Your task to perform on an android device: add a label to a message in the gmail app Image 0: 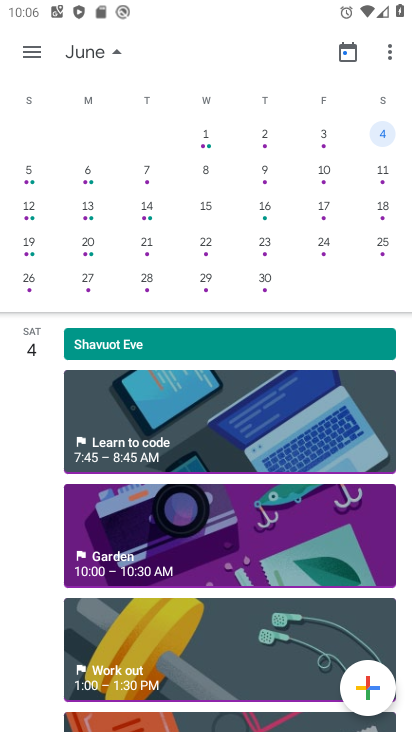
Step 0: press home button
Your task to perform on an android device: add a label to a message in the gmail app Image 1: 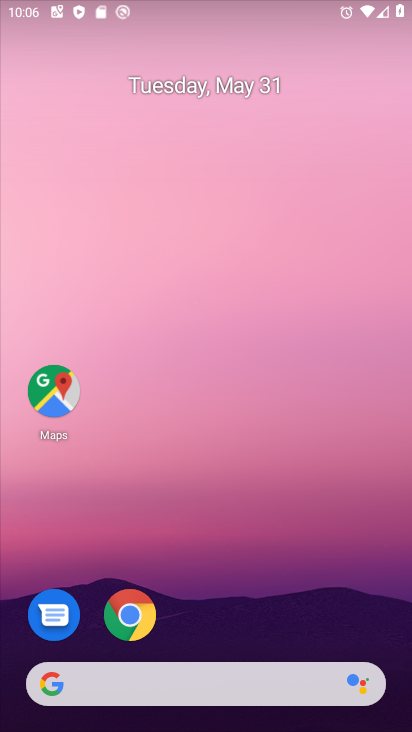
Step 1: drag from (313, 237) to (404, 100)
Your task to perform on an android device: add a label to a message in the gmail app Image 2: 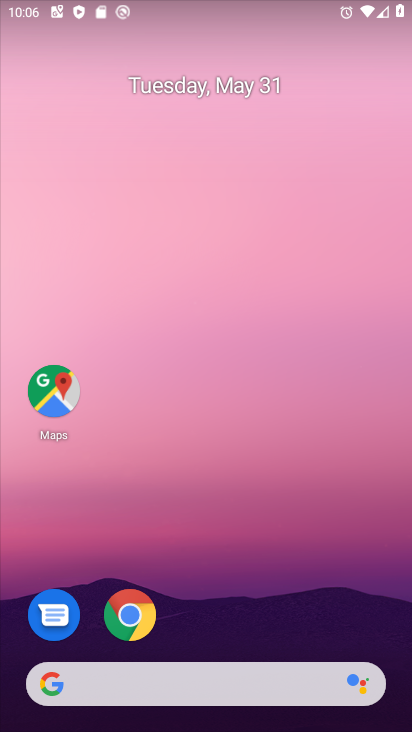
Step 2: drag from (293, 549) to (337, 21)
Your task to perform on an android device: add a label to a message in the gmail app Image 3: 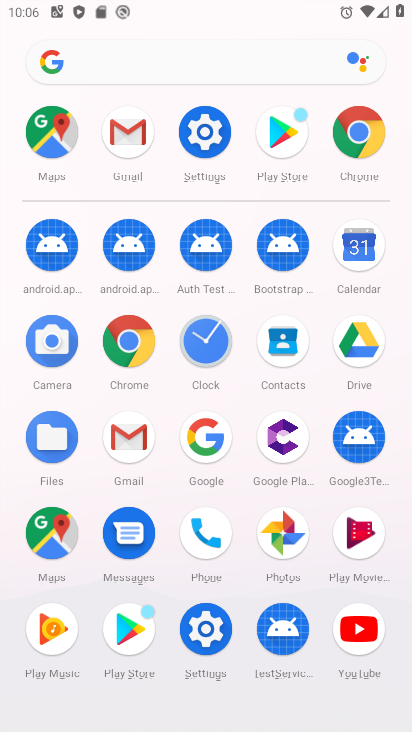
Step 3: click (112, 217)
Your task to perform on an android device: add a label to a message in the gmail app Image 4: 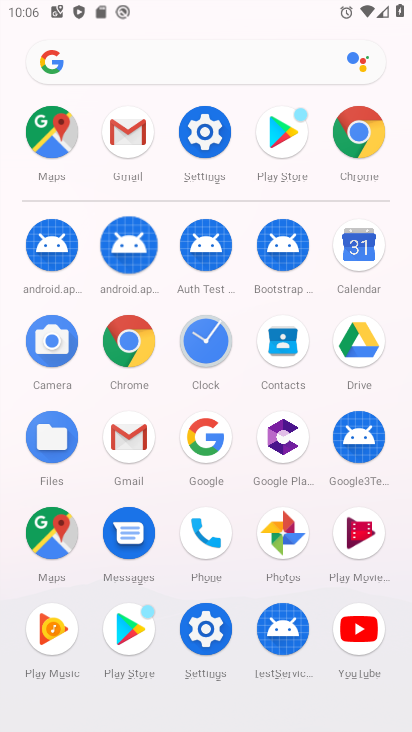
Step 4: click (129, 143)
Your task to perform on an android device: add a label to a message in the gmail app Image 5: 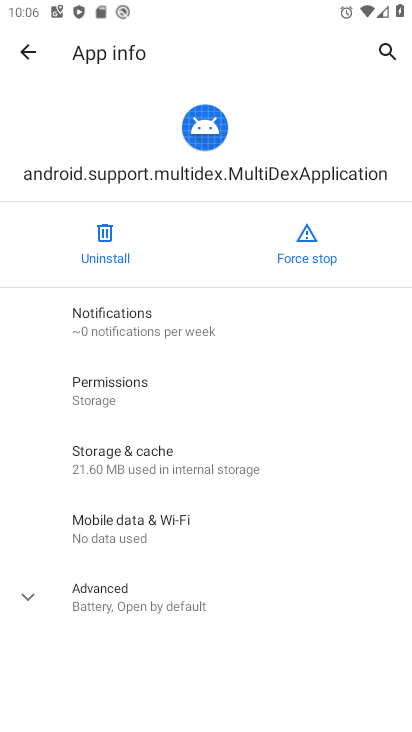
Step 5: press home button
Your task to perform on an android device: add a label to a message in the gmail app Image 6: 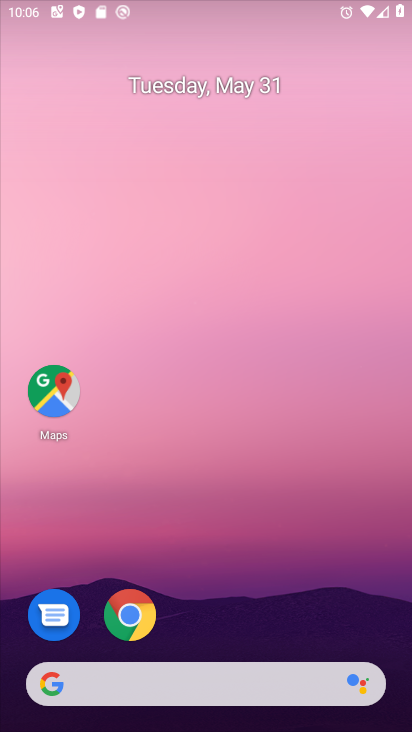
Step 6: drag from (326, 600) to (352, 71)
Your task to perform on an android device: add a label to a message in the gmail app Image 7: 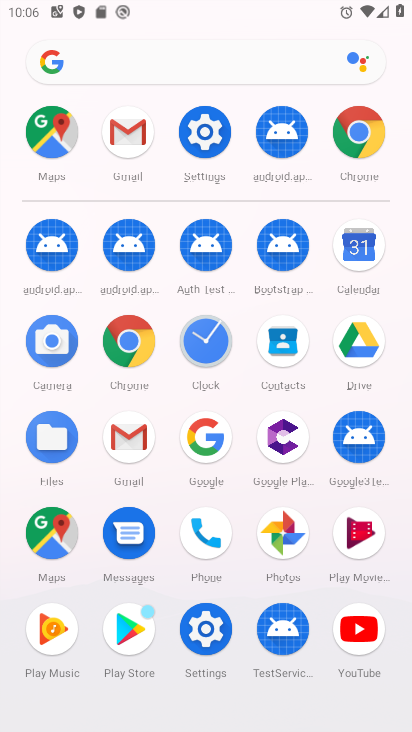
Step 7: click (145, 143)
Your task to perform on an android device: add a label to a message in the gmail app Image 8: 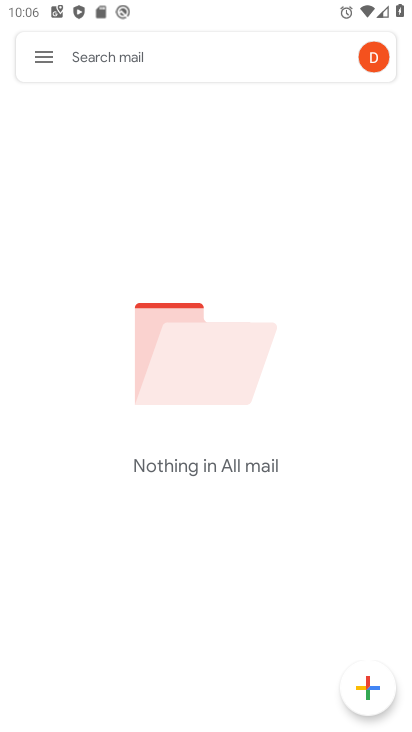
Step 8: task complete